Your task to perform on an android device: install app "Truecaller" Image 0: 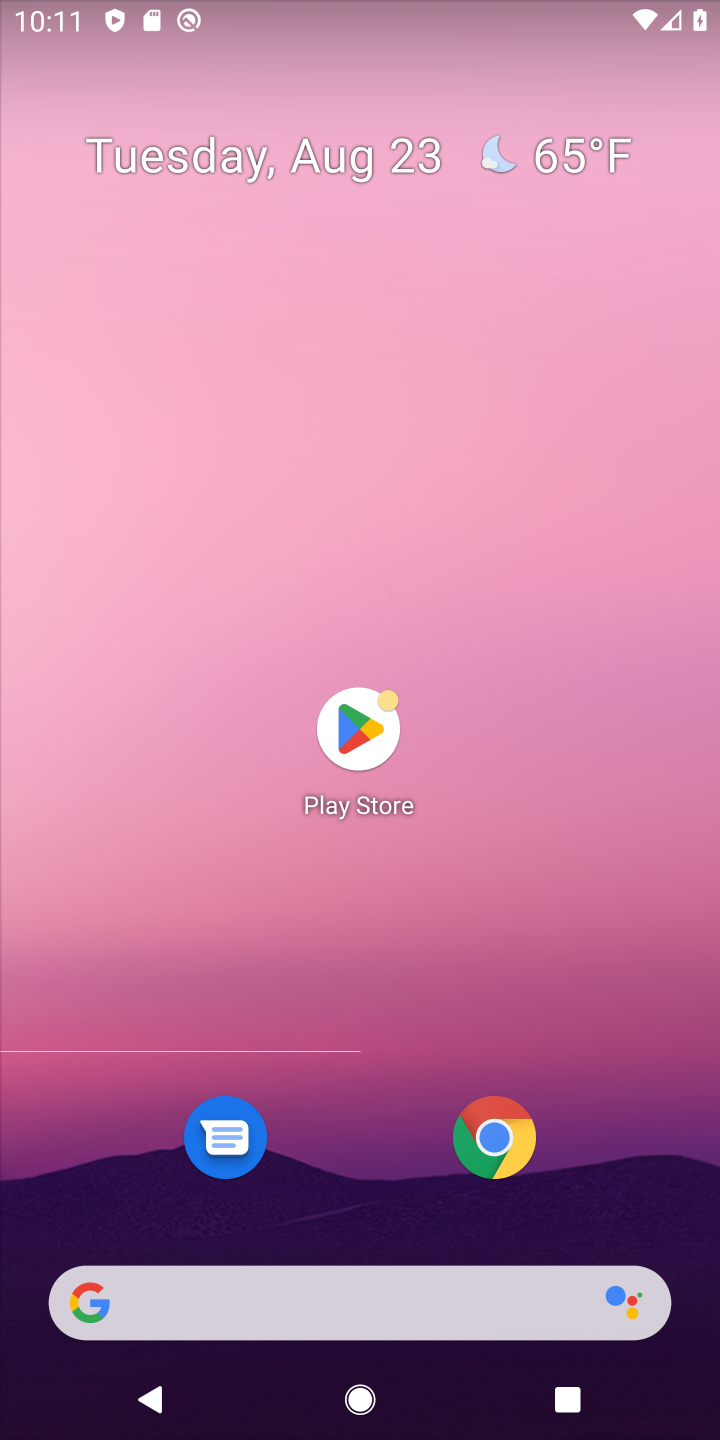
Step 0: press home button
Your task to perform on an android device: install app "Truecaller" Image 1: 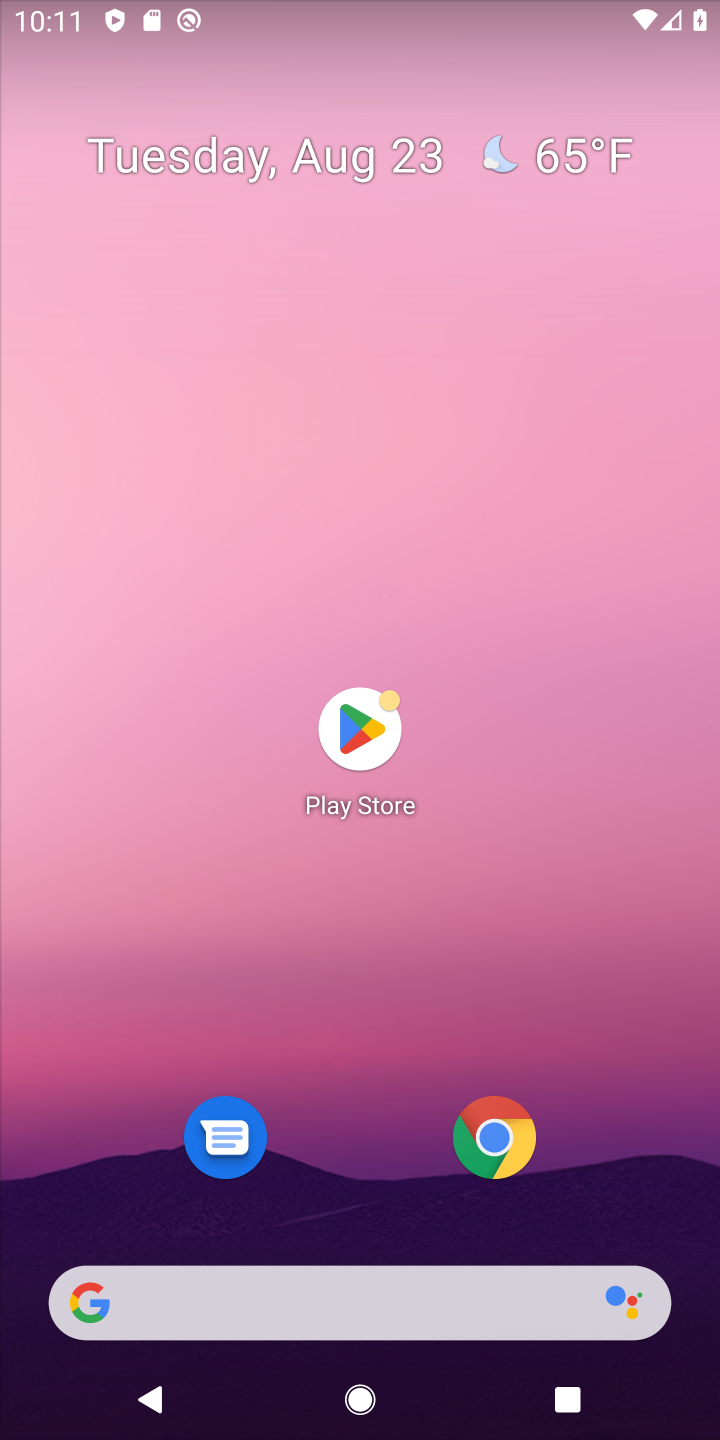
Step 1: click (356, 728)
Your task to perform on an android device: install app "Truecaller" Image 2: 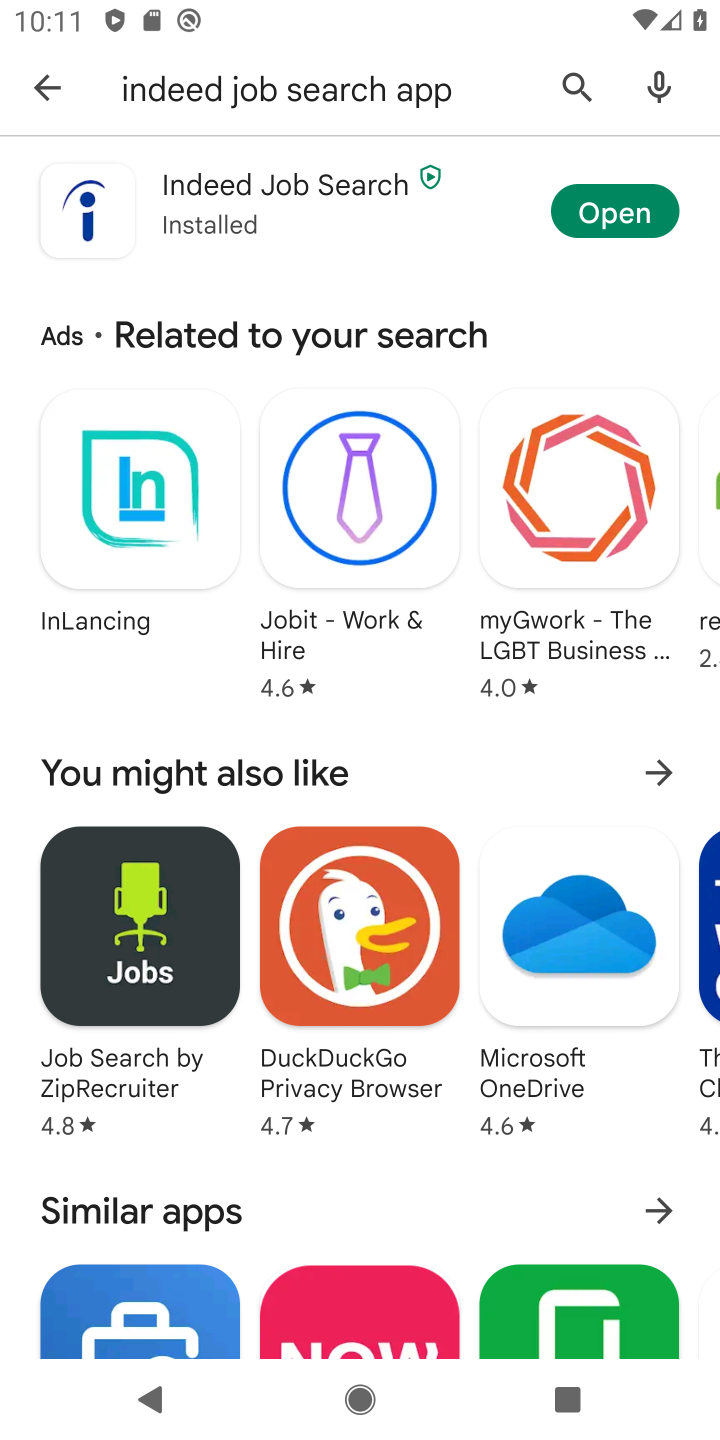
Step 2: click (575, 75)
Your task to perform on an android device: install app "Truecaller" Image 3: 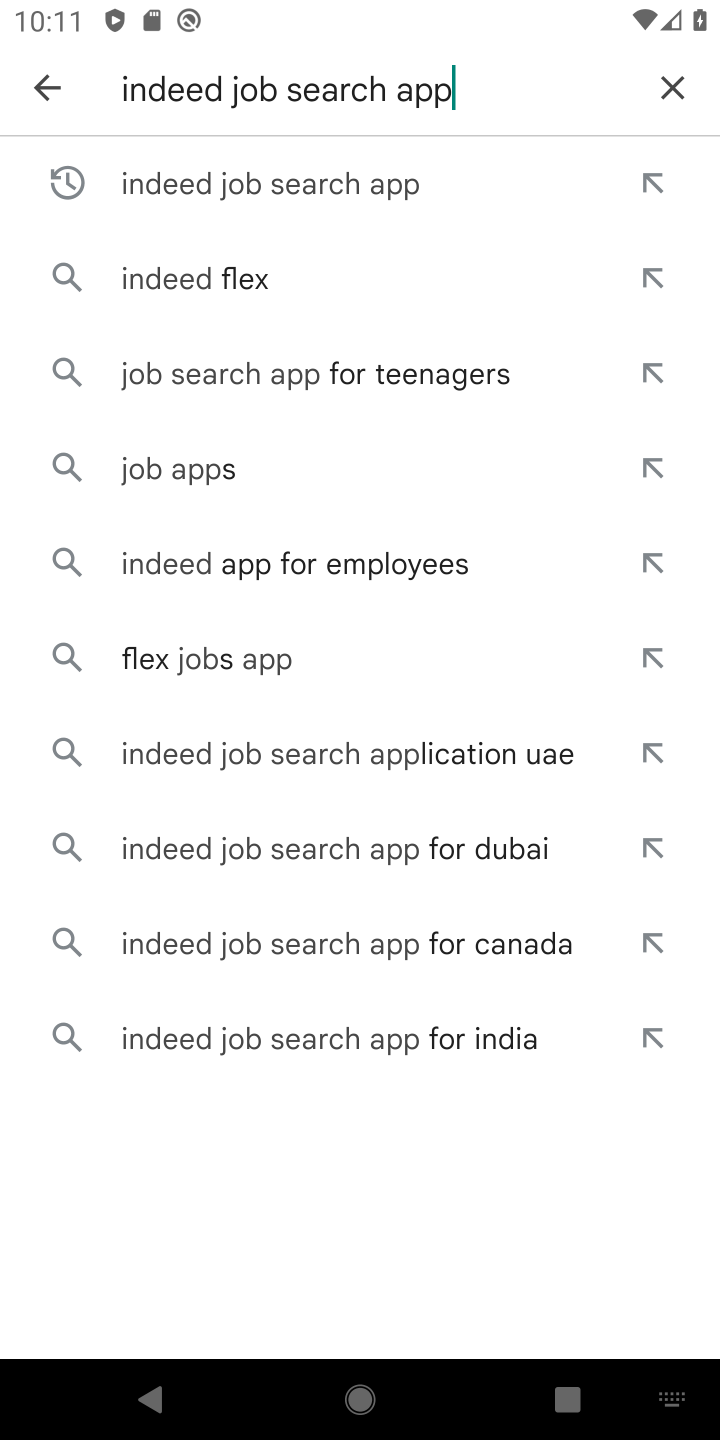
Step 3: click (669, 81)
Your task to perform on an android device: install app "Truecaller" Image 4: 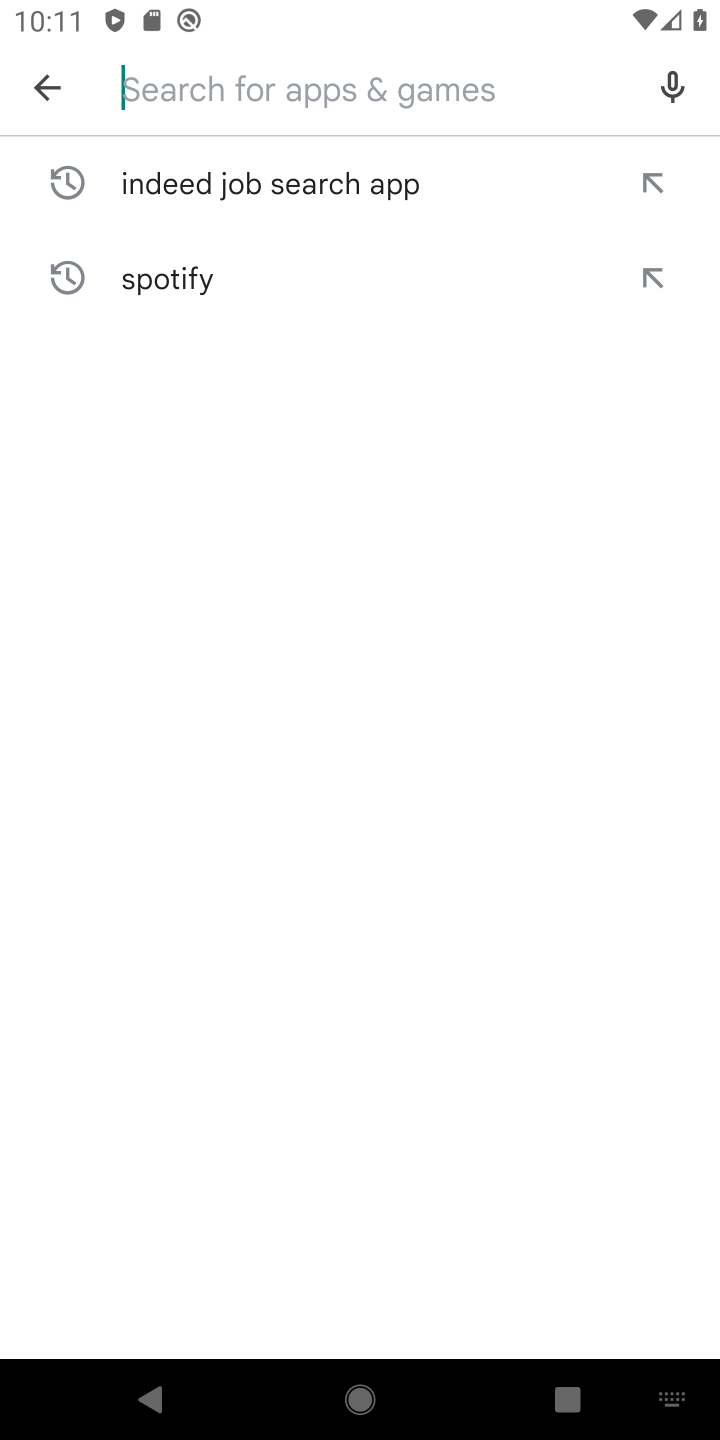
Step 4: type "Truecaller"
Your task to perform on an android device: install app "Truecaller" Image 5: 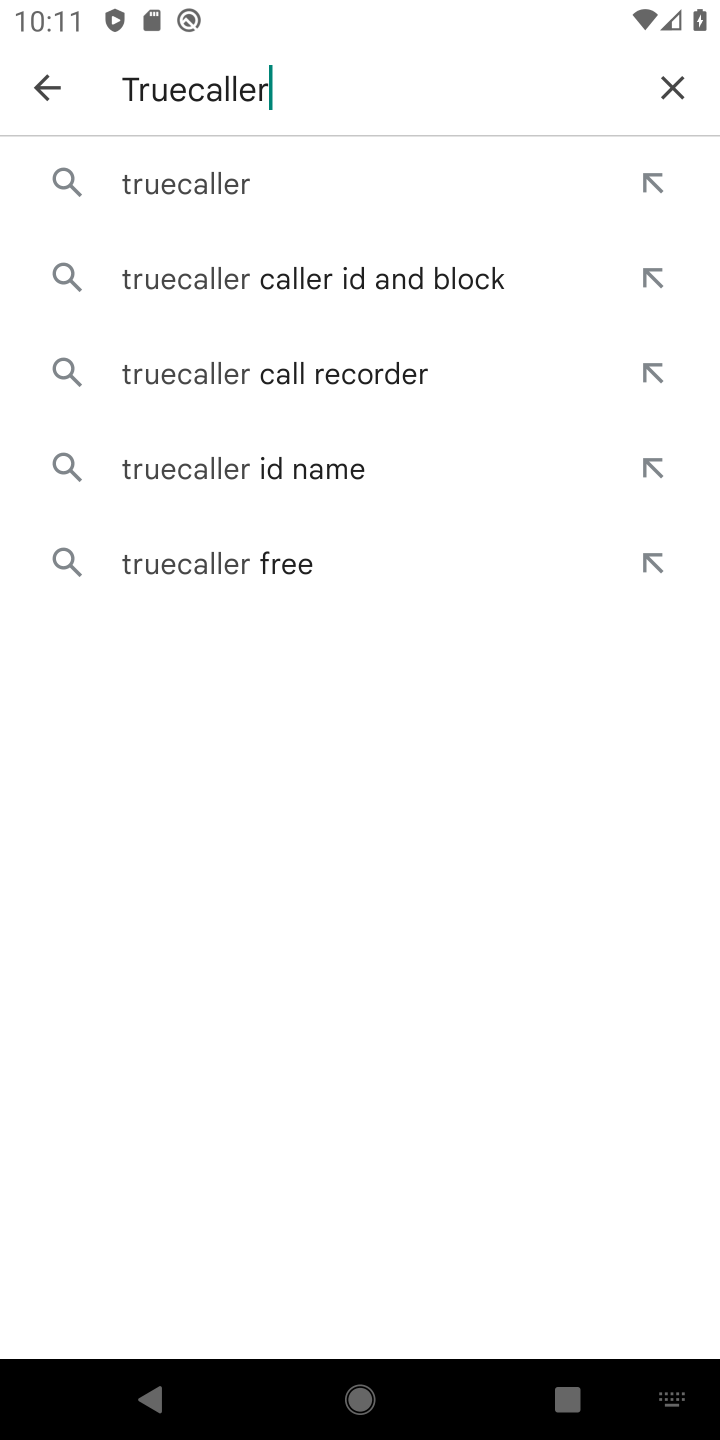
Step 5: click (192, 180)
Your task to perform on an android device: install app "Truecaller" Image 6: 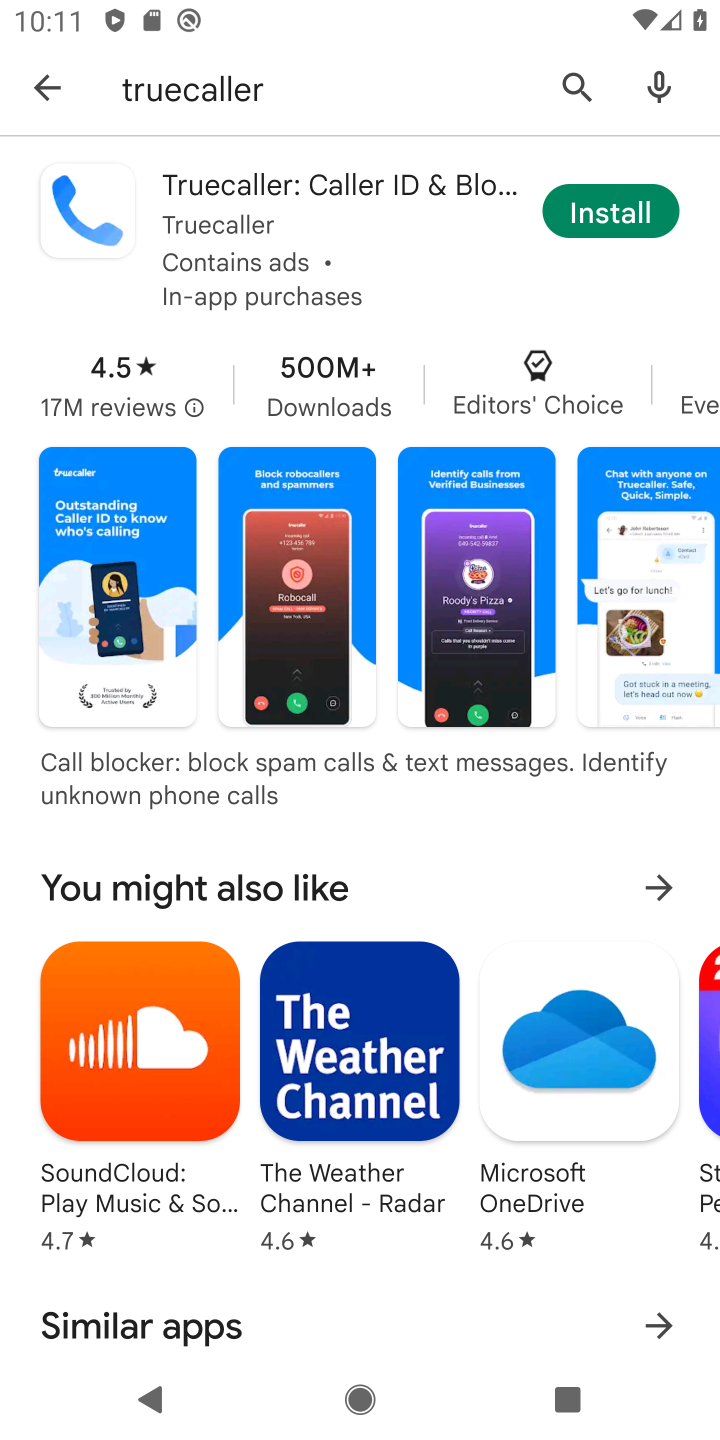
Step 6: click (628, 212)
Your task to perform on an android device: install app "Truecaller" Image 7: 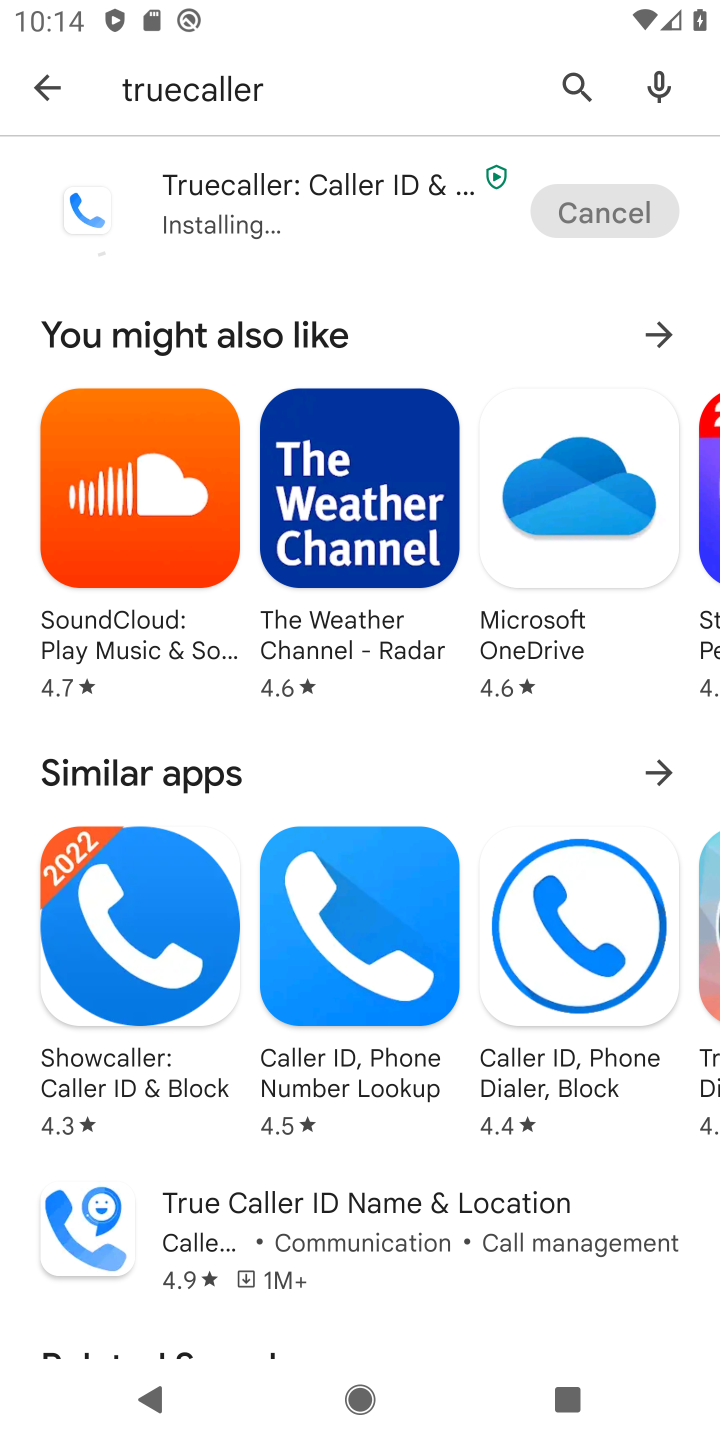
Step 7: task complete